Your task to perform on an android device: check data usage Image 0: 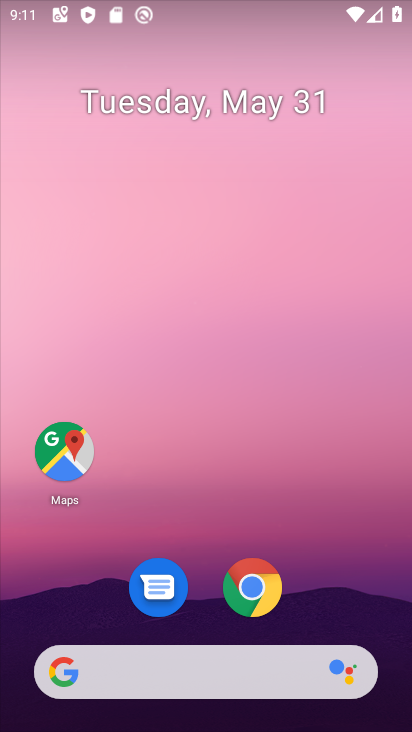
Step 0: drag from (173, 9) to (140, 517)
Your task to perform on an android device: check data usage Image 1: 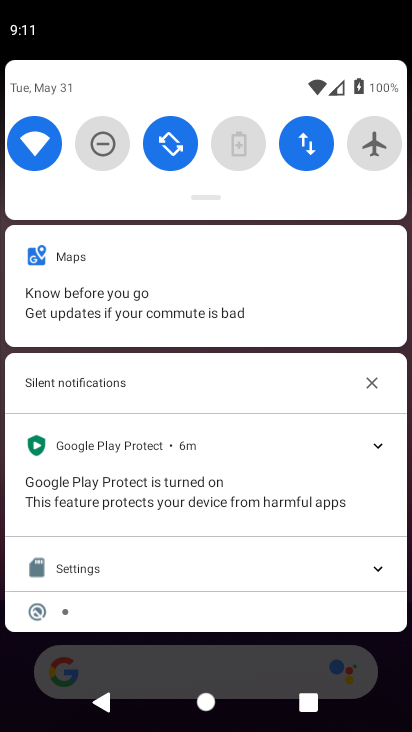
Step 1: click (304, 149)
Your task to perform on an android device: check data usage Image 2: 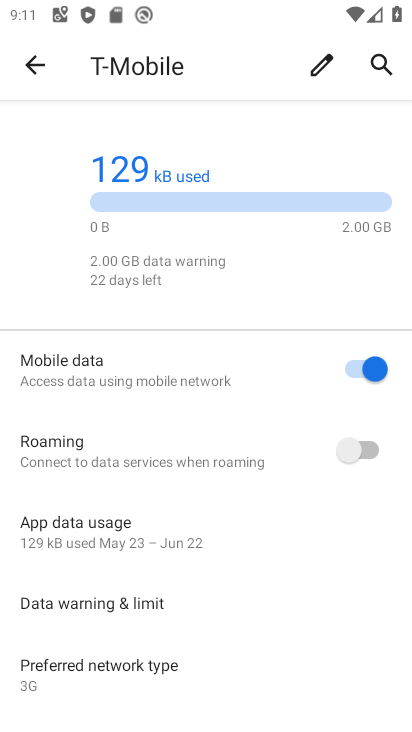
Step 2: task complete